Your task to perform on an android device: Is it going to rain this weekend? Image 0: 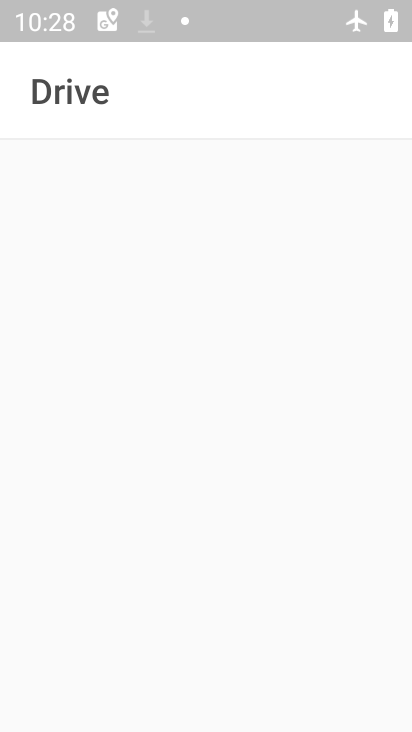
Step 0: press home button
Your task to perform on an android device: Is it going to rain this weekend? Image 1: 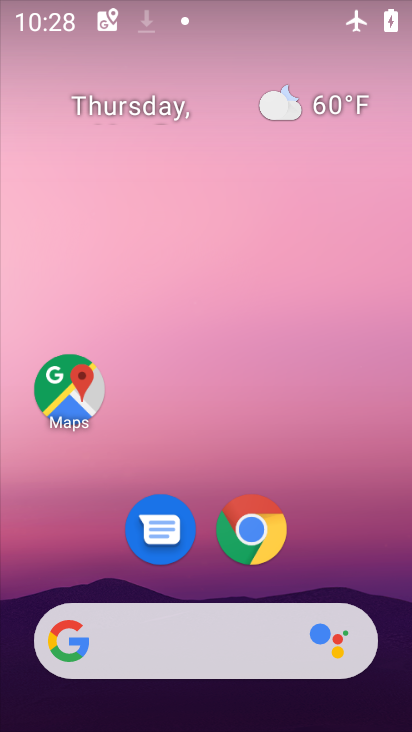
Step 1: drag from (228, 10) to (282, 722)
Your task to perform on an android device: Is it going to rain this weekend? Image 2: 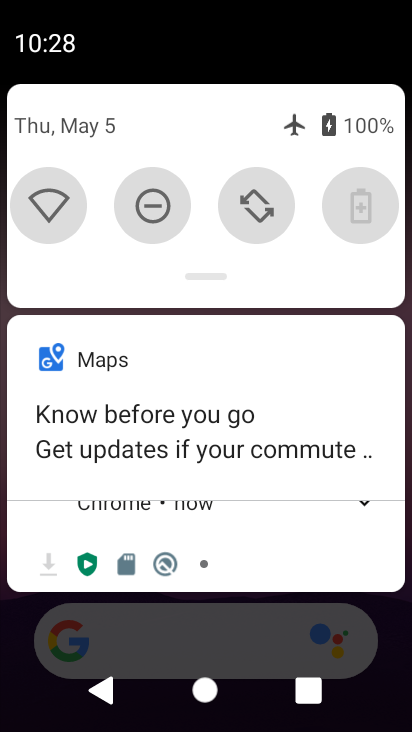
Step 2: drag from (219, 310) to (229, 656)
Your task to perform on an android device: Is it going to rain this weekend? Image 3: 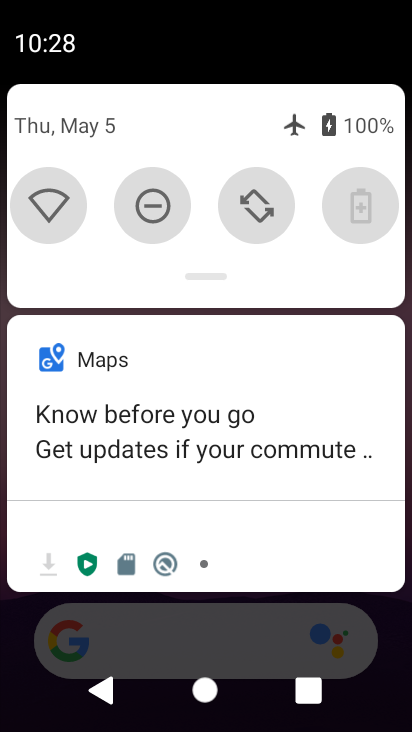
Step 3: click (48, 205)
Your task to perform on an android device: Is it going to rain this weekend? Image 4: 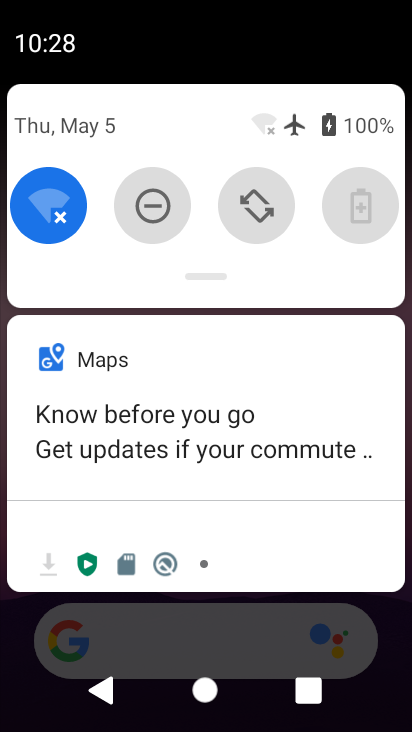
Step 4: click (59, 218)
Your task to perform on an android device: Is it going to rain this weekend? Image 5: 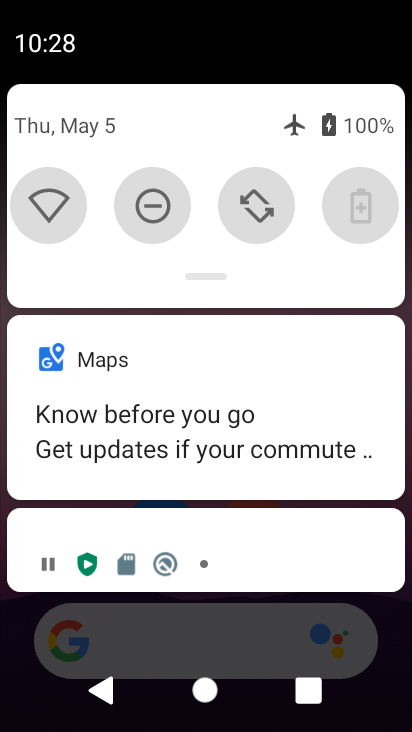
Step 5: click (397, 667)
Your task to perform on an android device: Is it going to rain this weekend? Image 6: 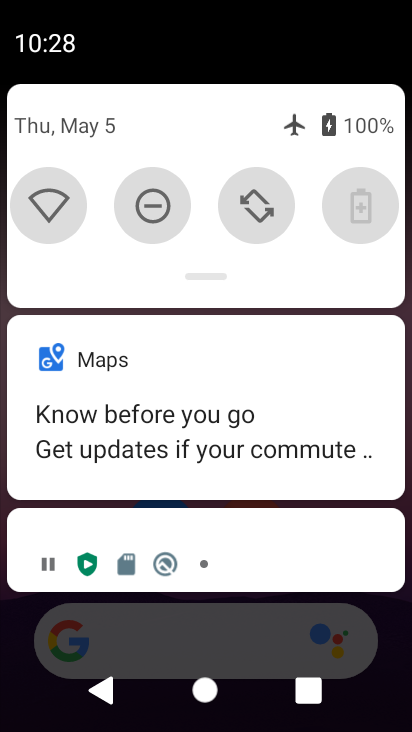
Step 6: click (396, 667)
Your task to perform on an android device: Is it going to rain this weekend? Image 7: 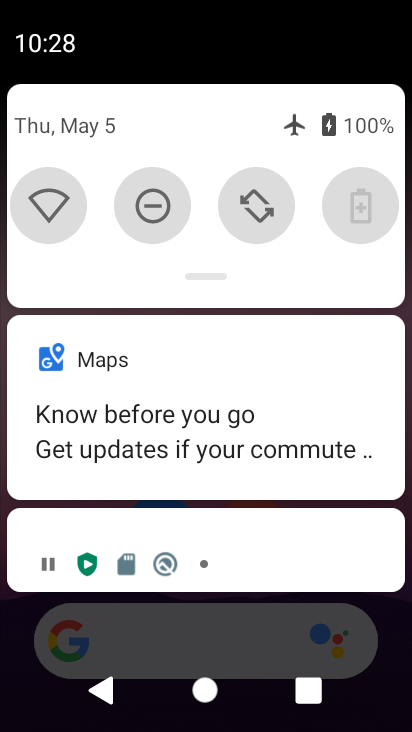
Step 7: click (396, 667)
Your task to perform on an android device: Is it going to rain this weekend? Image 8: 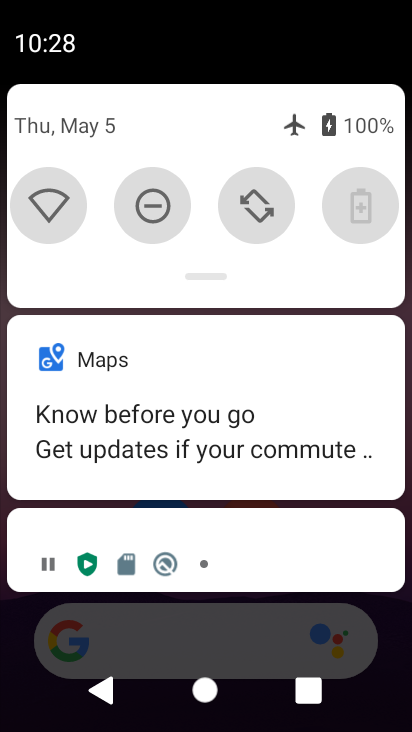
Step 8: click (396, 667)
Your task to perform on an android device: Is it going to rain this weekend? Image 9: 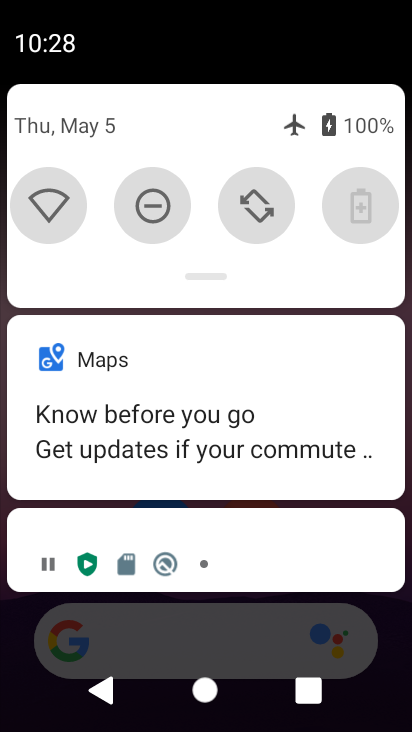
Step 9: click (396, 667)
Your task to perform on an android device: Is it going to rain this weekend? Image 10: 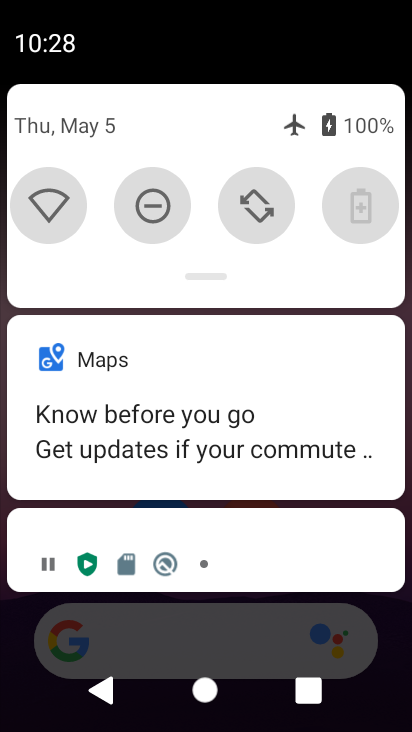
Step 10: click (396, 667)
Your task to perform on an android device: Is it going to rain this weekend? Image 11: 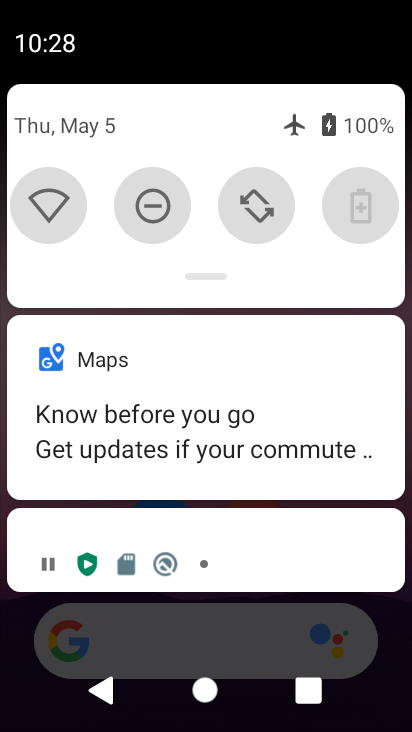
Step 11: press home button
Your task to perform on an android device: Is it going to rain this weekend? Image 12: 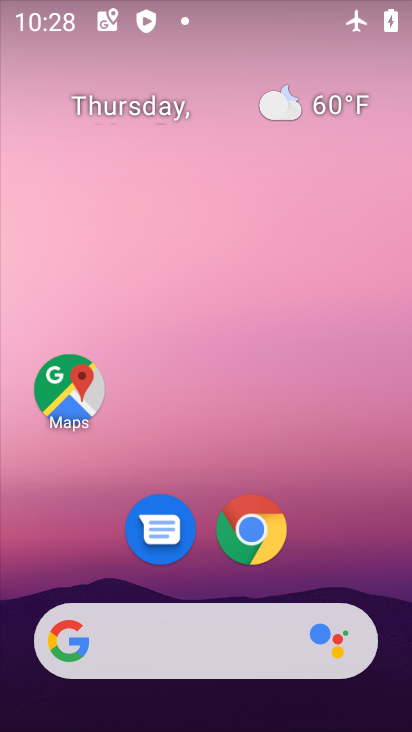
Step 12: drag from (3, 258) to (330, 257)
Your task to perform on an android device: Is it going to rain this weekend? Image 13: 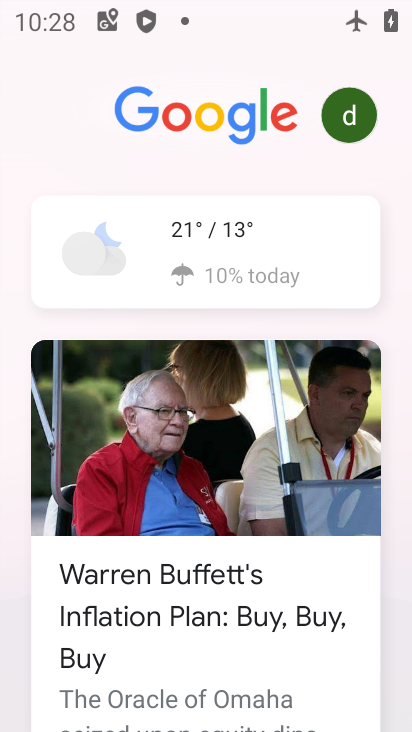
Step 13: click (220, 251)
Your task to perform on an android device: Is it going to rain this weekend? Image 14: 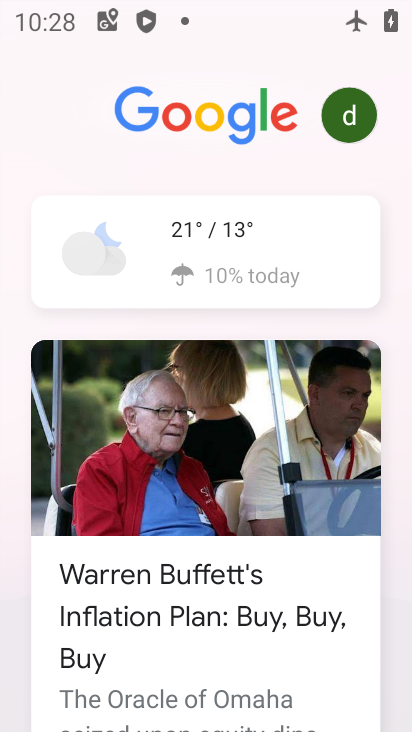
Step 14: click (220, 251)
Your task to perform on an android device: Is it going to rain this weekend? Image 15: 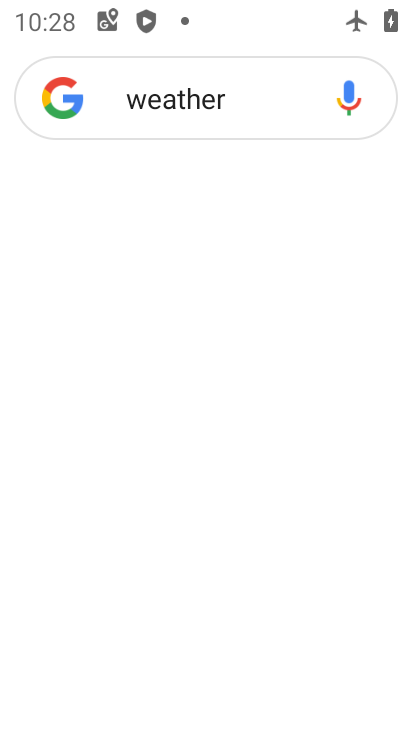
Step 15: click (220, 251)
Your task to perform on an android device: Is it going to rain this weekend? Image 16: 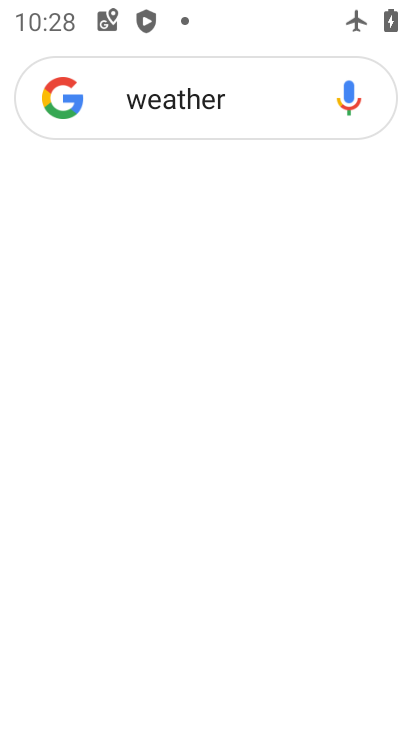
Step 16: click (220, 251)
Your task to perform on an android device: Is it going to rain this weekend? Image 17: 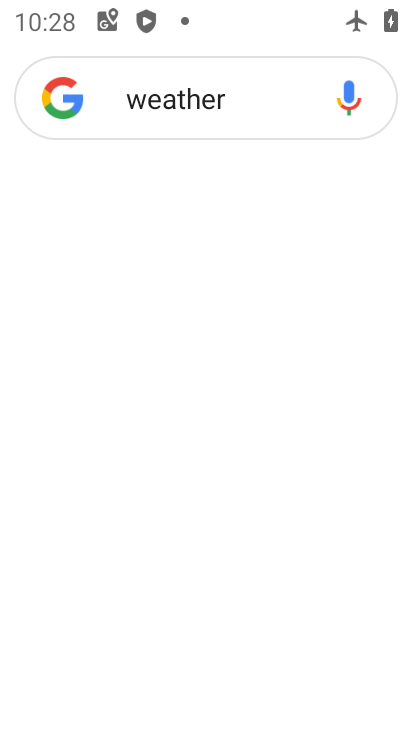
Step 17: click (220, 251)
Your task to perform on an android device: Is it going to rain this weekend? Image 18: 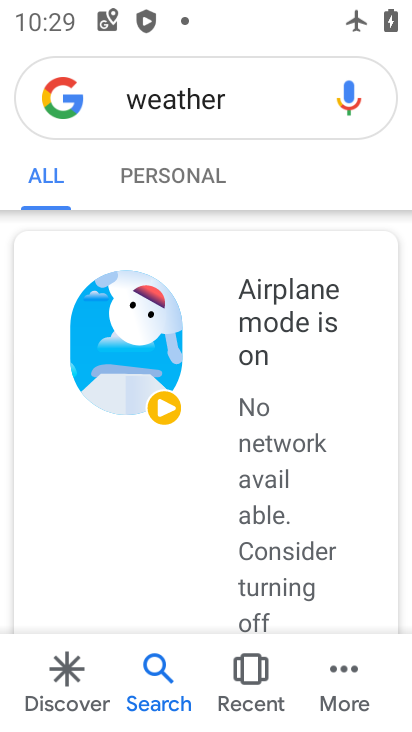
Step 18: task complete